Your task to perform on an android device: Open privacy settings Image 0: 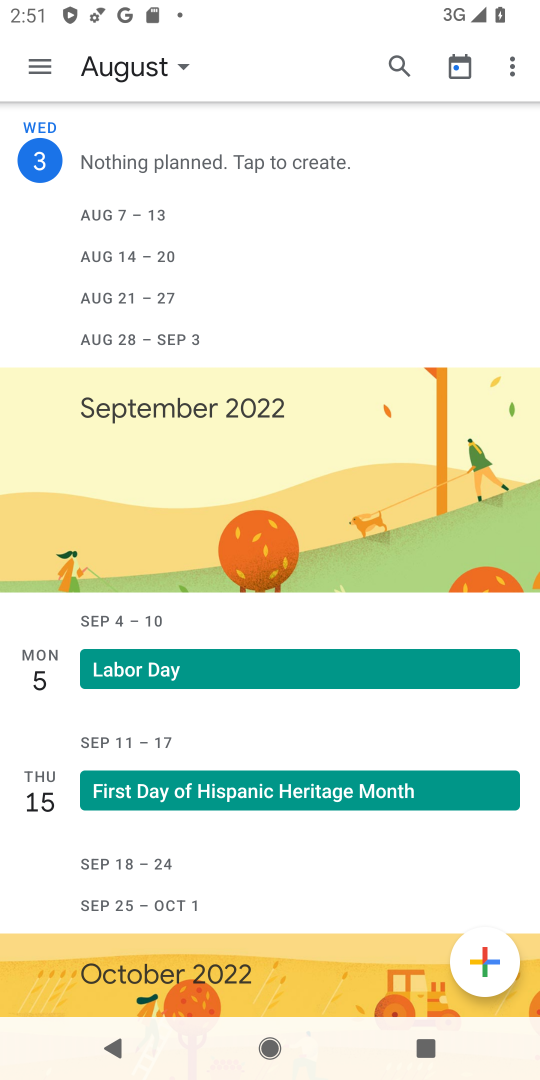
Step 0: press home button
Your task to perform on an android device: Open privacy settings Image 1: 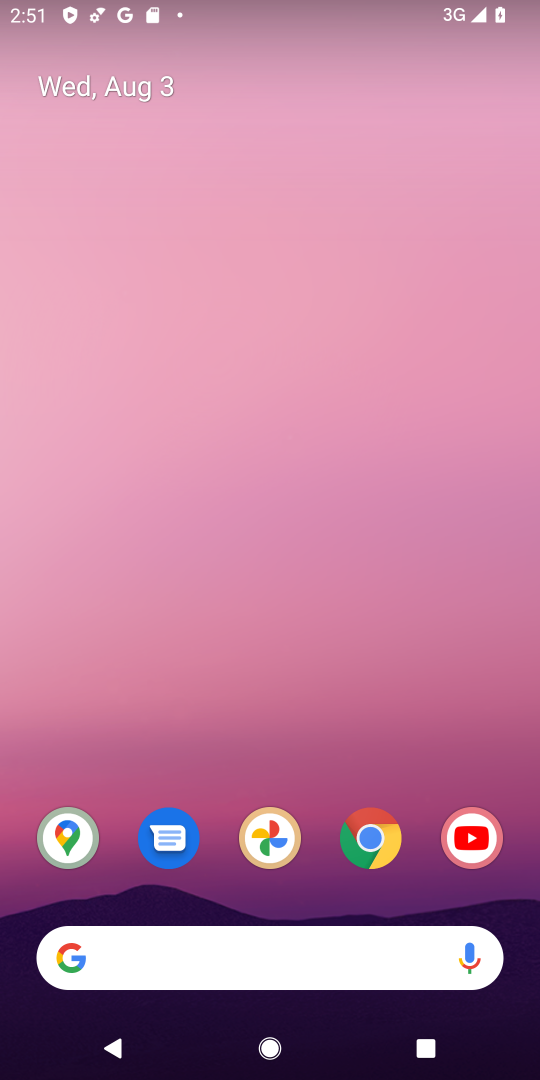
Step 1: drag from (302, 894) to (182, 382)
Your task to perform on an android device: Open privacy settings Image 2: 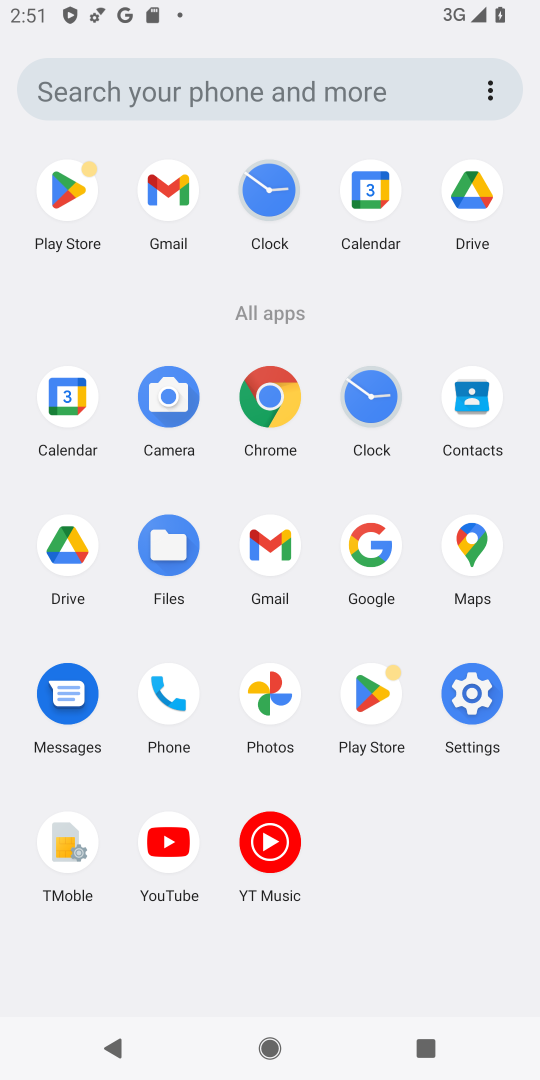
Step 2: click (480, 686)
Your task to perform on an android device: Open privacy settings Image 3: 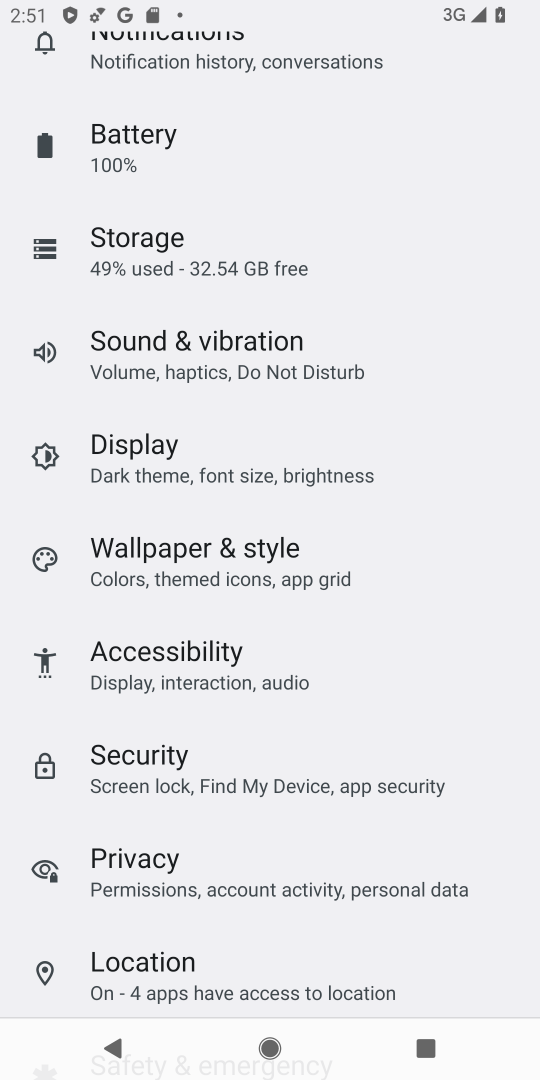
Step 3: click (170, 860)
Your task to perform on an android device: Open privacy settings Image 4: 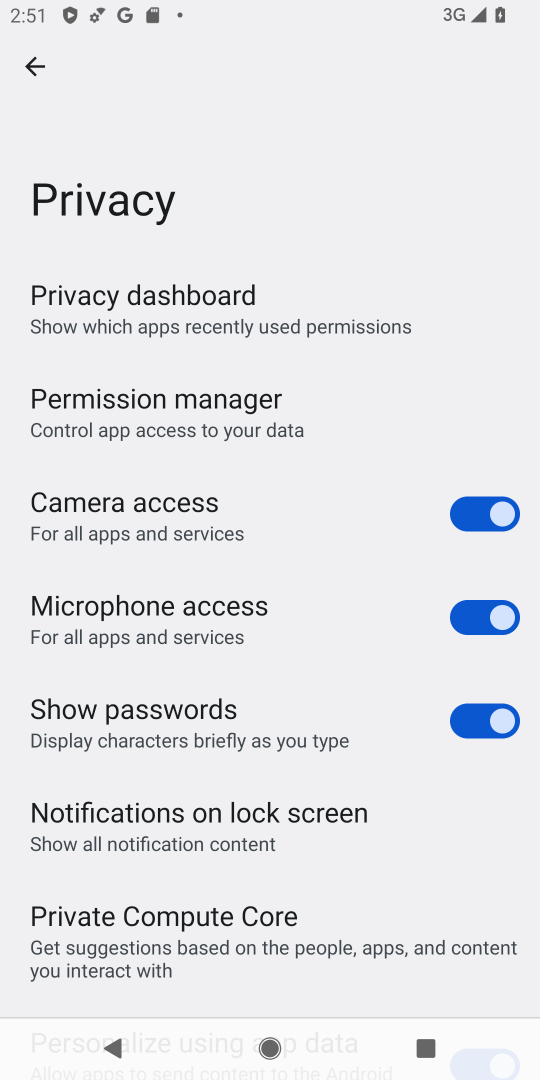
Step 4: task complete